Your task to perform on an android device: Go to wifi settings Image 0: 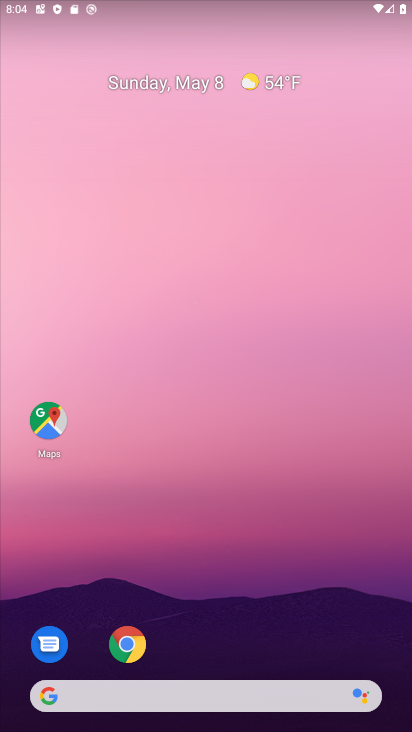
Step 0: click (257, 128)
Your task to perform on an android device: Go to wifi settings Image 1: 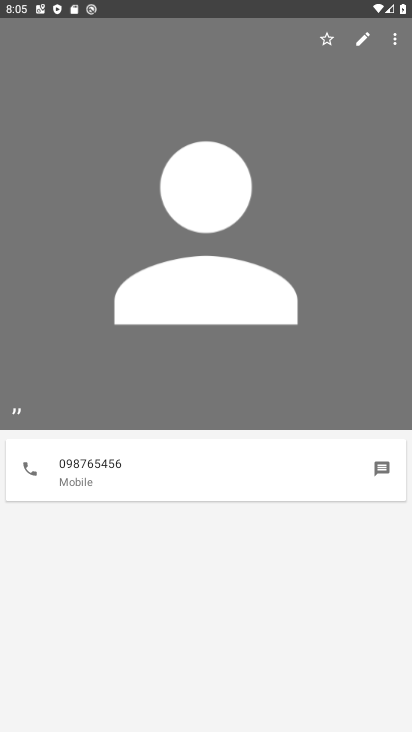
Step 1: drag from (194, 610) to (259, 168)
Your task to perform on an android device: Go to wifi settings Image 2: 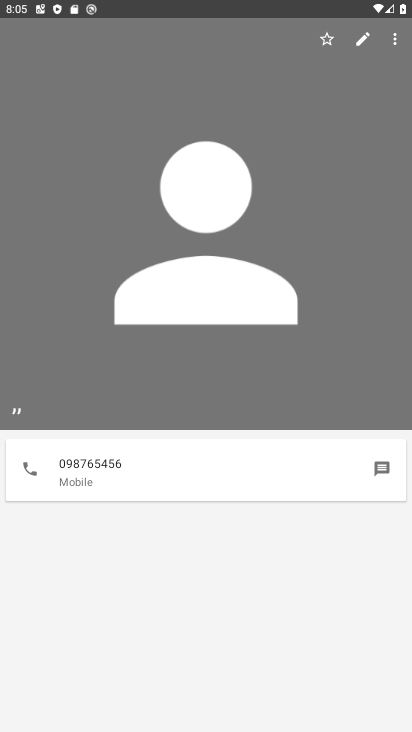
Step 2: press home button
Your task to perform on an android device: Go to wifi settings Image 3: 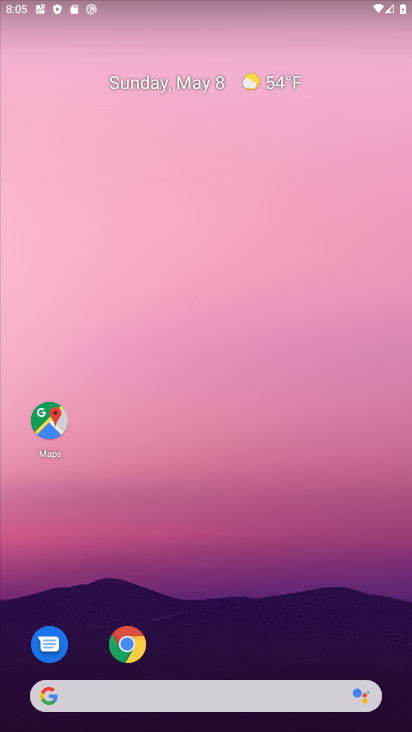
Step 3: drag from (203, 600) to (237, 234)
Your task to perform on an android device: Go to wifi settings Image 4: 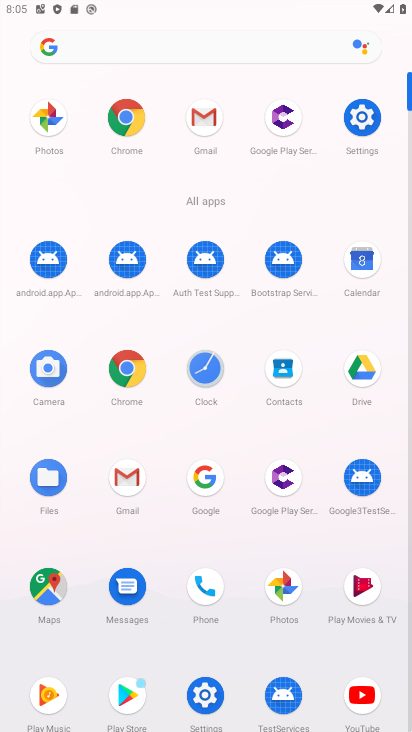
Step 4: click (363, 120)
Your task to perform on an android device: Go to wifi settings Image 5: 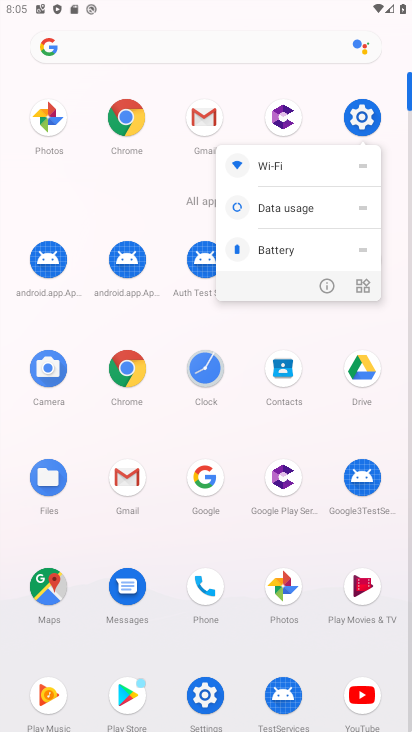
Step 5: click (320, 280)
Your task to perform on an android device: Go to wifi settings Image 6: 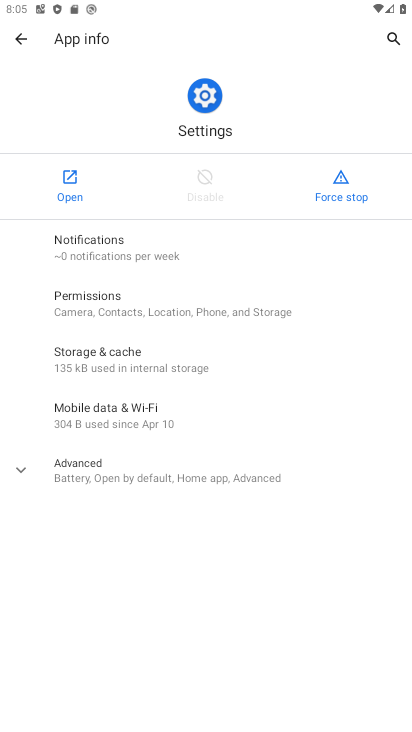
Step 6: click (56, 191)
Your task to perform on an android device: Go to wifi settings Image 7: 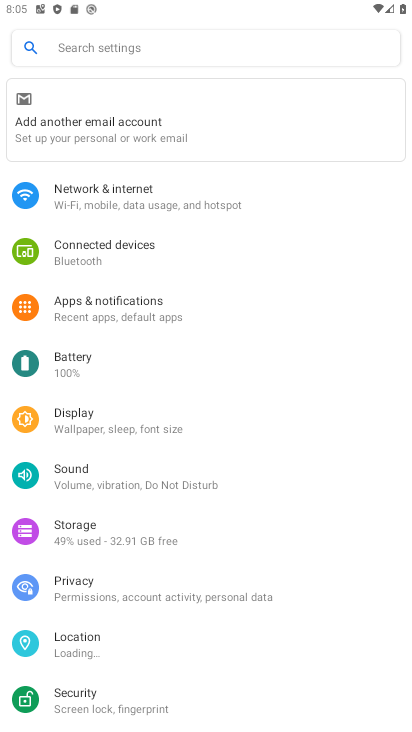
Step 7: click (125, 207)
Your task to perform on an android device: Go to wifi settings Image 8: 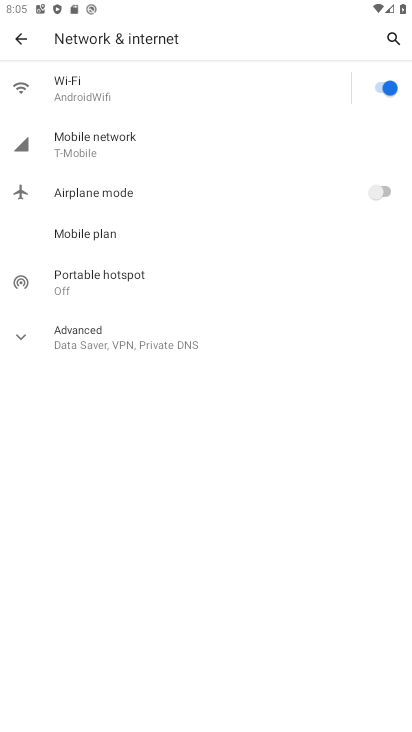
Step 8: click (160, 77)
Your task to perform on an android device: Go to wifi settings Image 9: 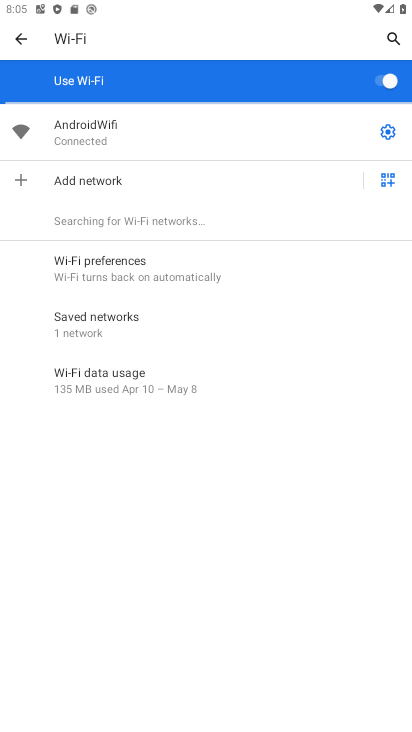
Step 9: click (385, 140)
Your task to perform on an android device: Go to wifi settings Image 10: 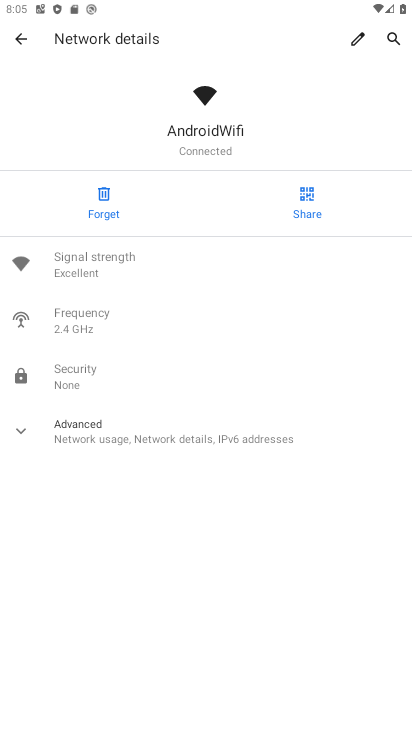
Step 10: task complete